Your task to perform on an android device: Open privacy settings Image 0: 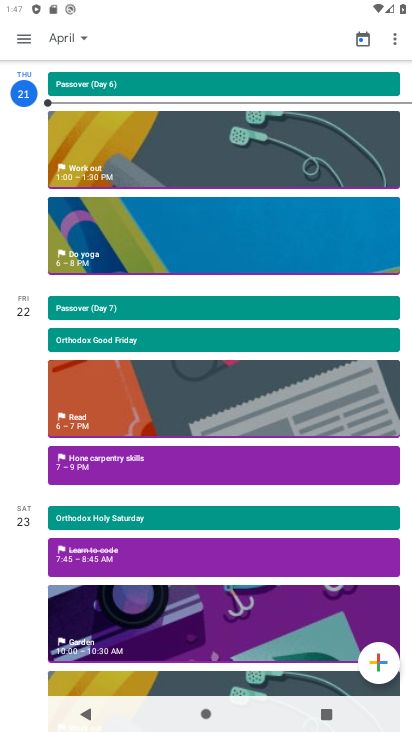
Step 0: press home button
Your task to perform on an android device: Open privacy settings Image 1: 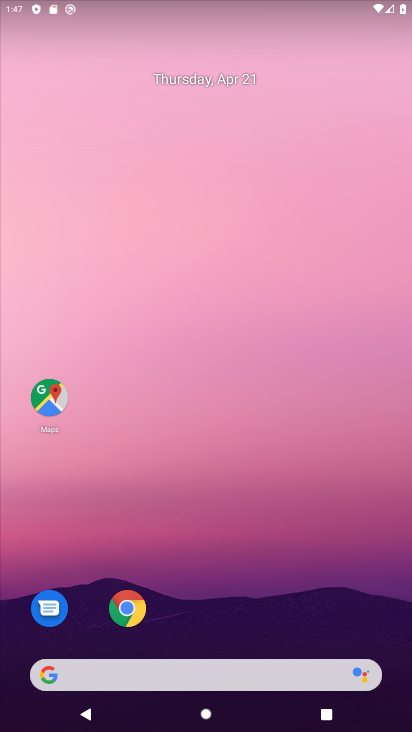
Step 1: click (145, 612)
Your task to perform on an android device: Open privacy settings Image 2: 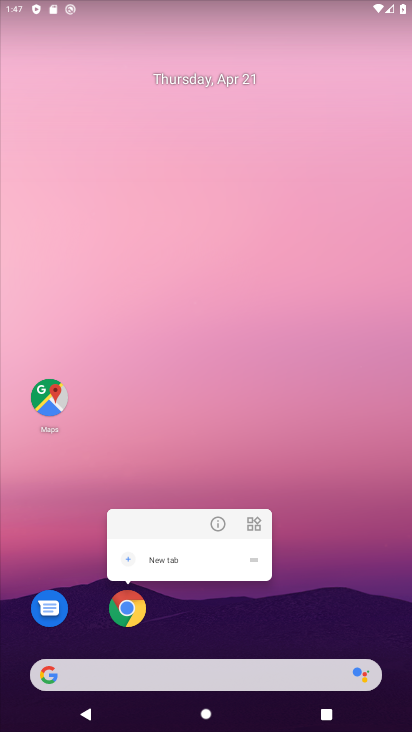
Step 2: click (137, 611)
Your task to perform on an android device: Open privacy settings Image 3: 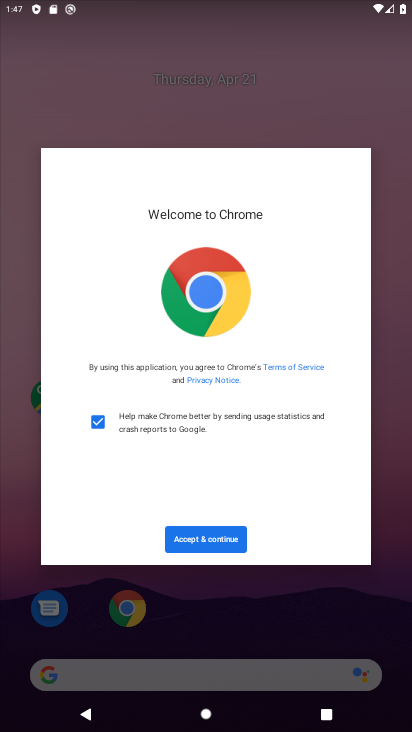
Step 3: click (238, 537)
Your task to perform on an android device: Open privacy settings Image 4: 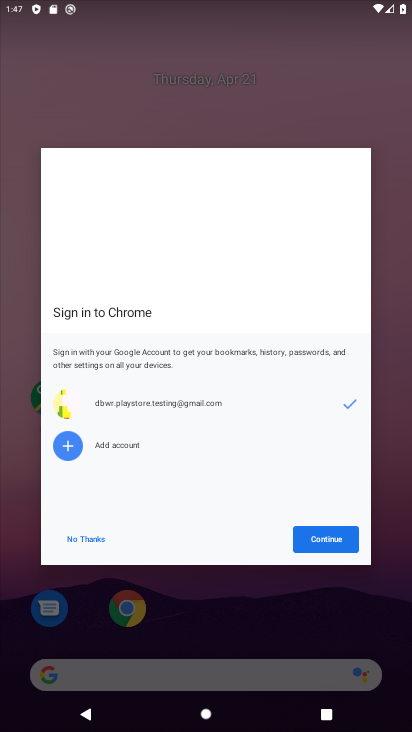
Step 4: click (307, 534)
Your task to perform on an android device: Open privacy settings Image 5: 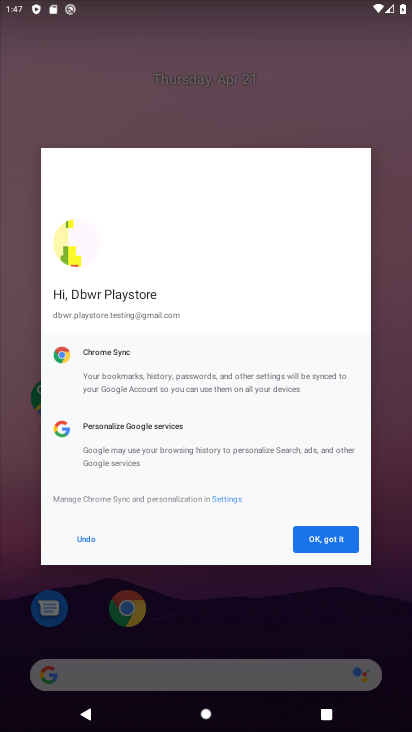
Step 5: click (307, 534)
Your task to perform on an android device: Open privacy settings Image 6: 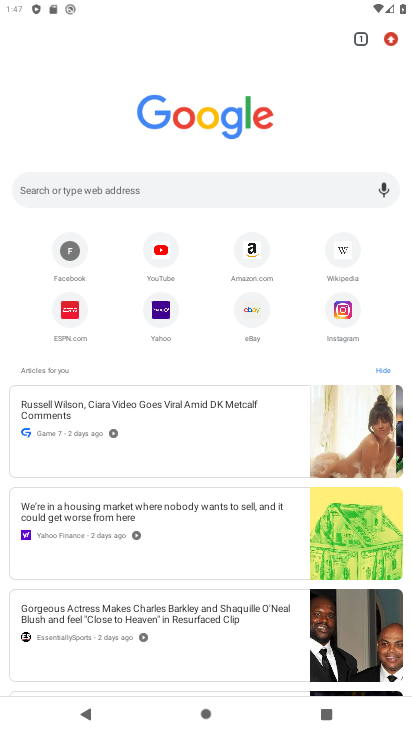
Step 6: drag from (390, 40) to (254, 368)
Your task to perform on an android device: Open privacy settings Image 7: 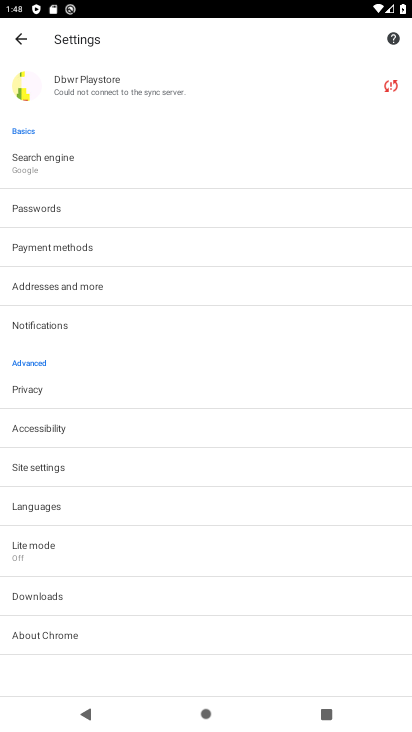
Step 7: click (59, 398)
Your task to perform on an android device: Open privacy settings Image 8: 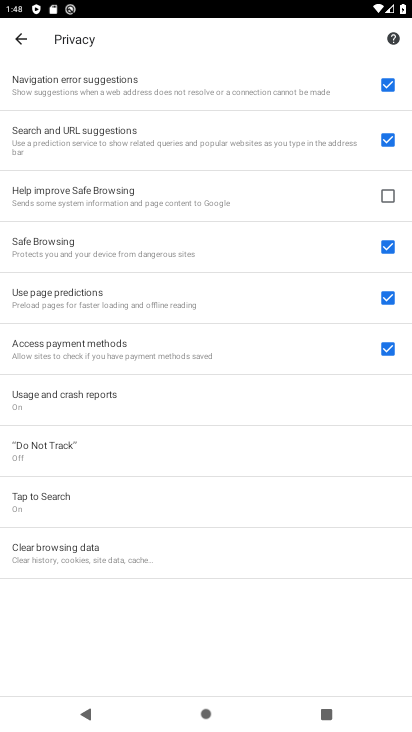
Step 8: task complete